Your task to perform on an android device: What is the news today? Image 0: 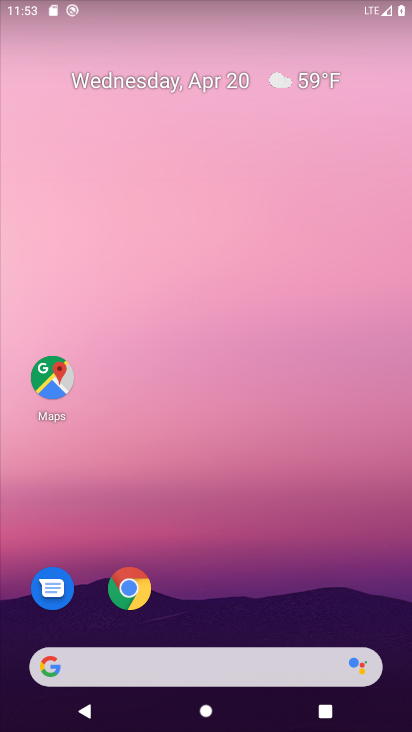
Step 0: drag from (5, 293) to (411, 296)
Your task to perform on an android device: What is the news today? Image 1: 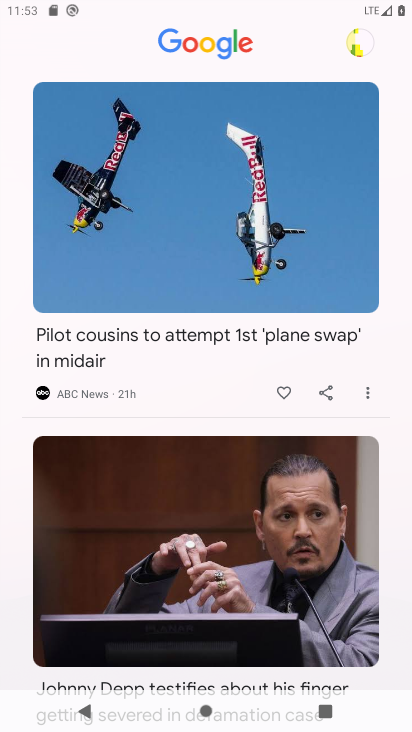
Step 1: task complete